Your task to perform on an android device: Open the map Image 0: 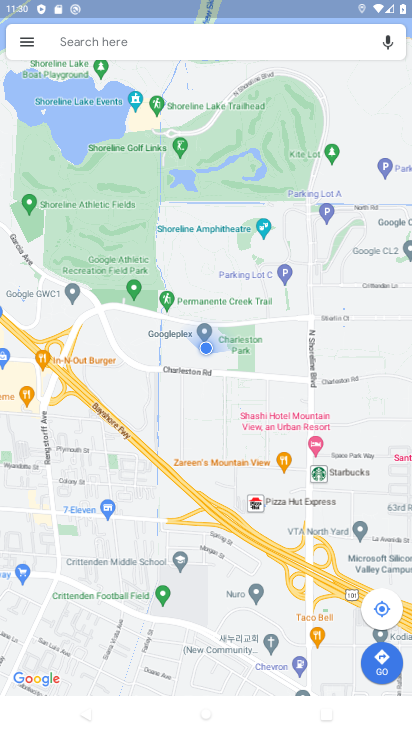
Step 0: task complete